Your task to perform on an android device: Open wifi settings Image 0: 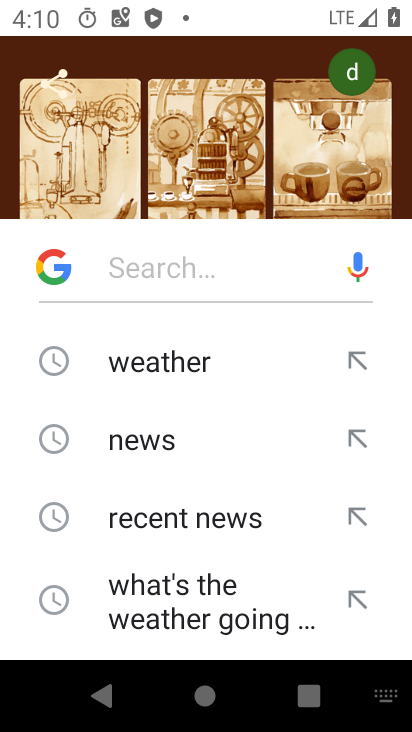
Step 0: press home button
Your task to perform on an android device: Open wifi settings Image 1: 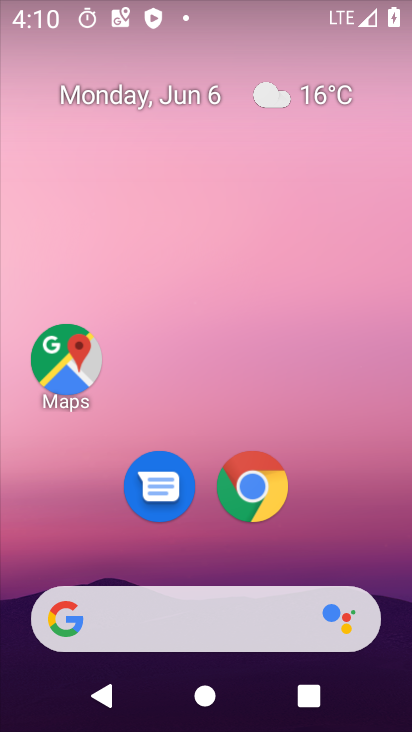
Step 1: drag from (326, 523) to (352, 171)
Your task to perform on an android device: Open wifi settings Image 2: 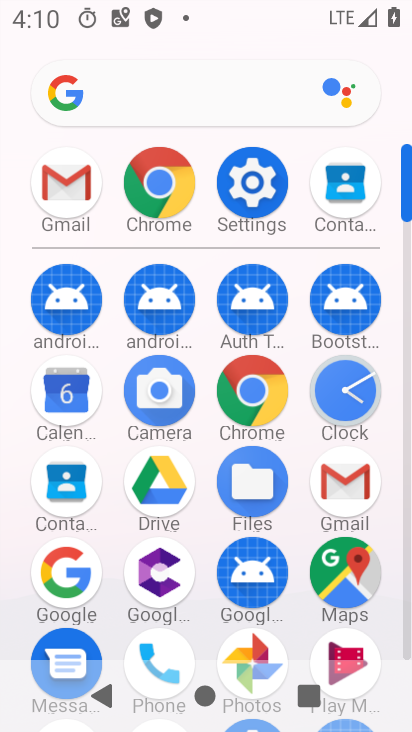
Step 2: click (255, 213)
Your task to perform on an android device: Open wifi settings Image 3: 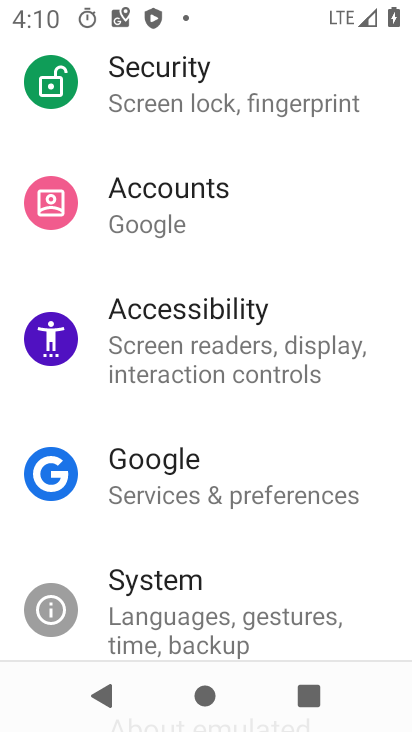
Step 3: drag from (230, 123) to (220, 620)
Your task to perform on an android device: Open wifi settings Image 4: 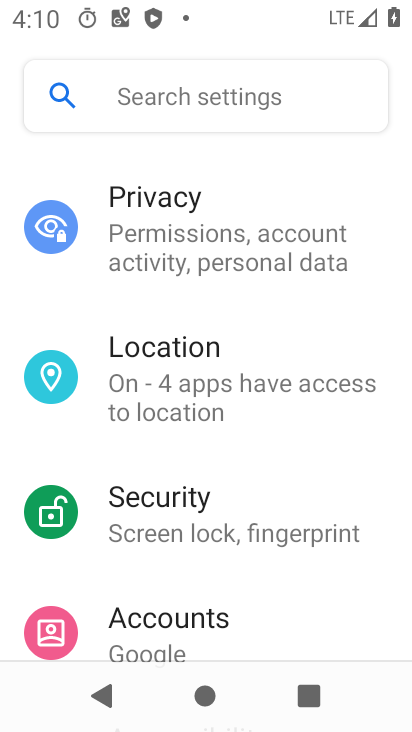
Step 4: drag from (146, 141) to (178, 598)
Your task to perform on an android device: Open wifi settings Image 5: 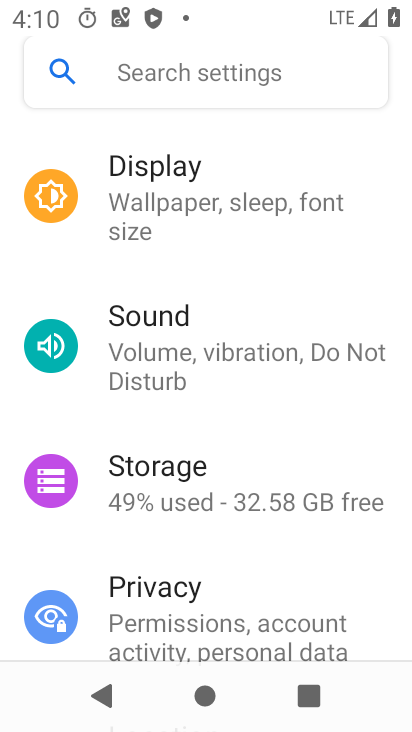
Step 5: drag from (177, 179) to (164, 570)
Your task to perform on an android device: Open wifi settings Image 6: 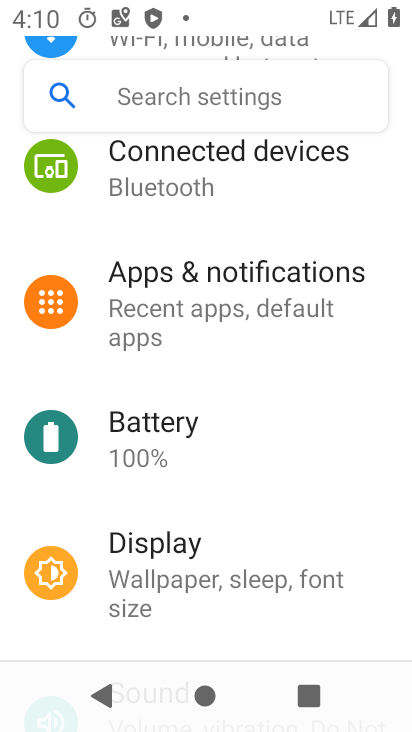
Step 6: drag from (191, 219) to (180, 567)
Your task to perform on an android device: Open wifi settings Image 7: 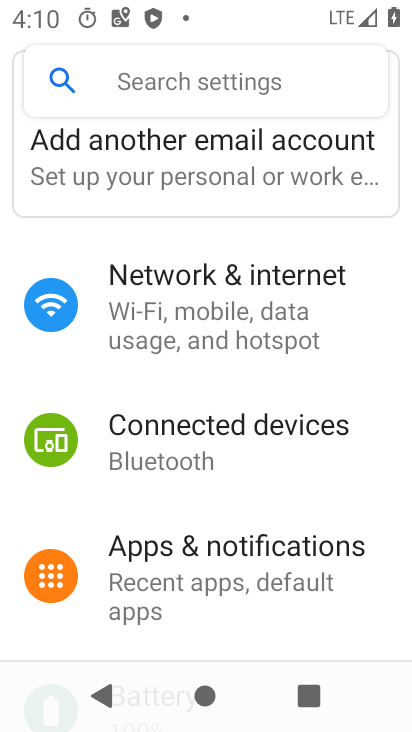
Step 7: click (159, 328)
Your task to perform on an android device: Open wifi settings Image 8: 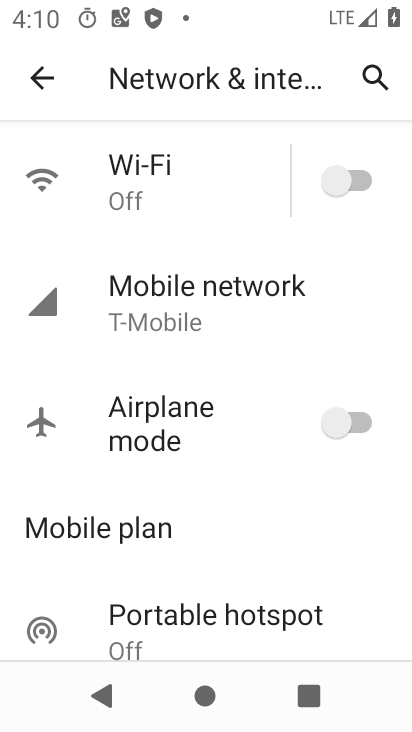
Step 8: click (207, 175)
Your task to perform on an android device: Open wifi settings Image 9: 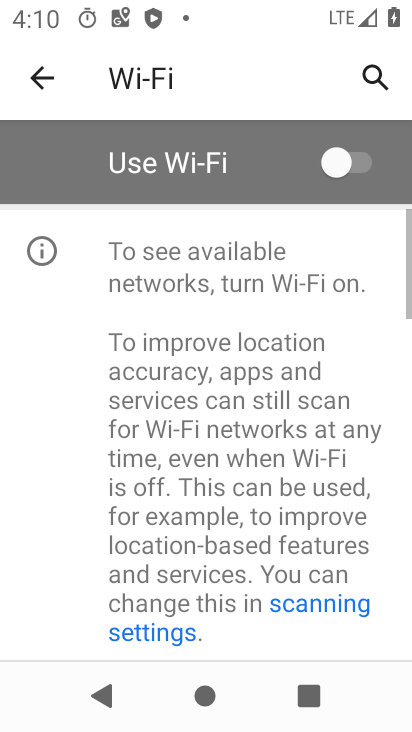
Step 9: click (339, 165)
Your task to perform on an android device: Open wifi settings Image 10: 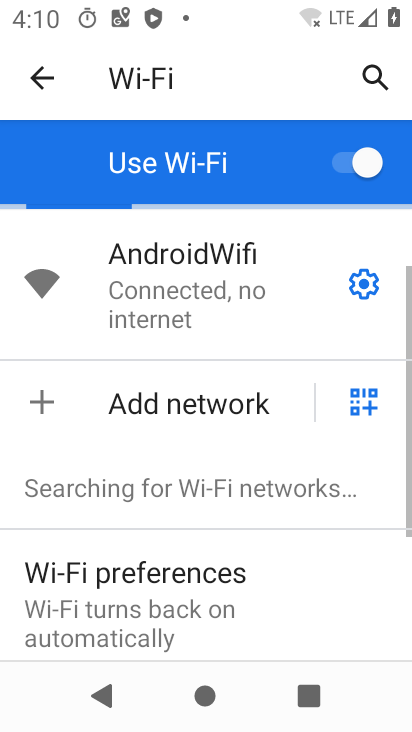
Step 10: click (369, 294)
Your task to perform on an android device: Open wifi settings Image 11: 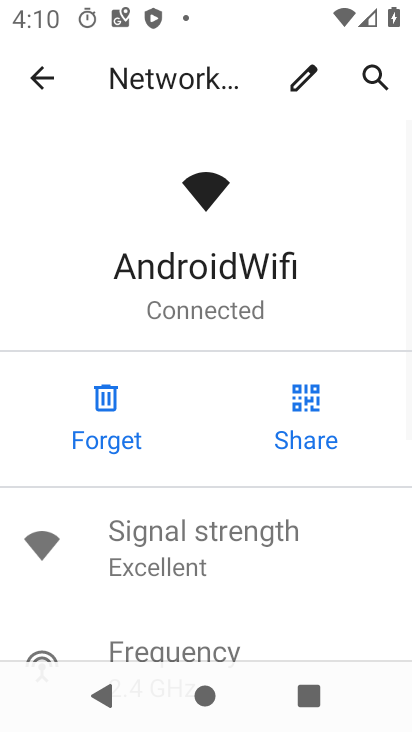
Step 11: task complete